Your task to perform on an android device: set the stopwatch Image 0: 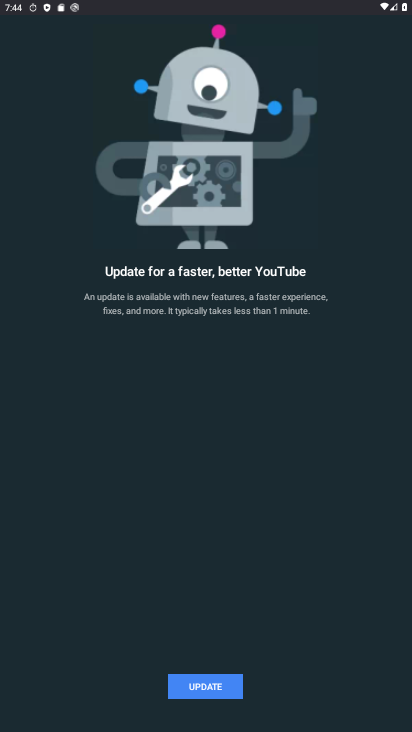
Step 0: press home button
Your task to perform on an android device: set the stopwatch Image 1: 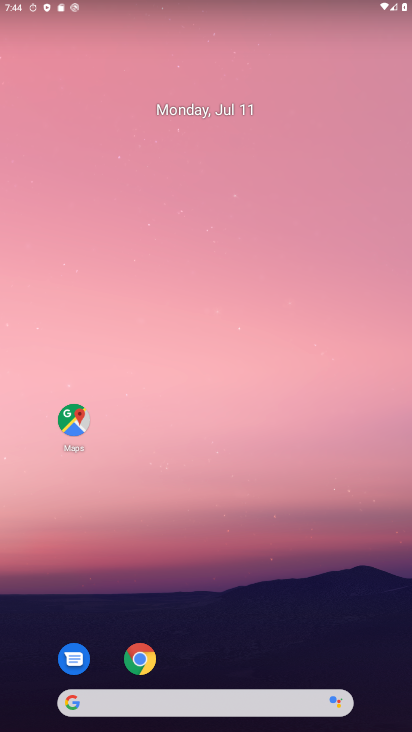
Step 1: drag from (285, 585) to (17, 25)
Your task to perform on an android device: set the stopwatch Image 2: 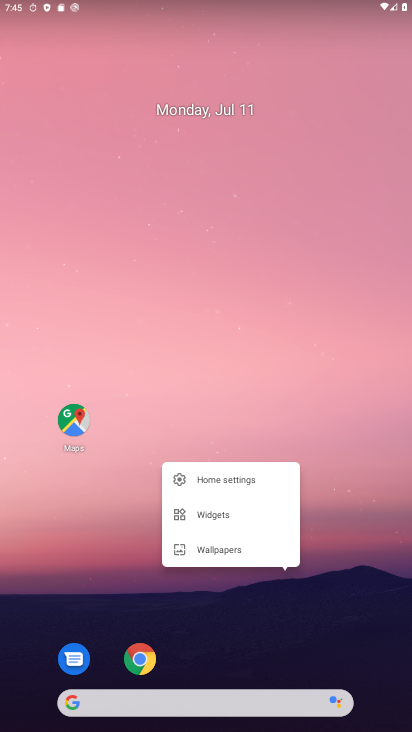
Step 2: click (294, 614)
Your task to perform on an android device: set the stopwatch Image 3: 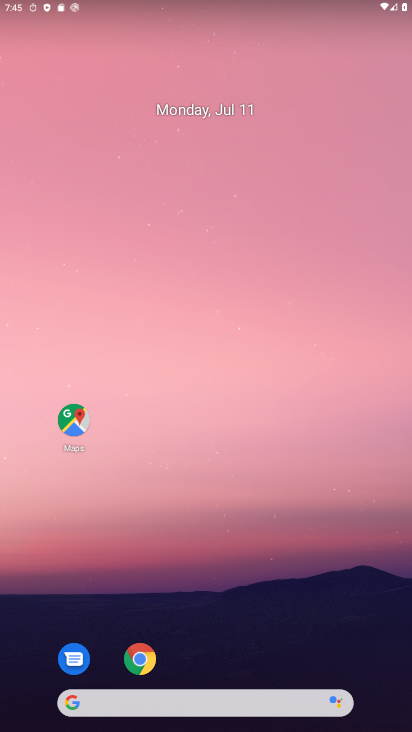
Step 3: drag from (296, 613) to (3, 289)
Your task to perform on an android device: set the stopwatch Image 4: 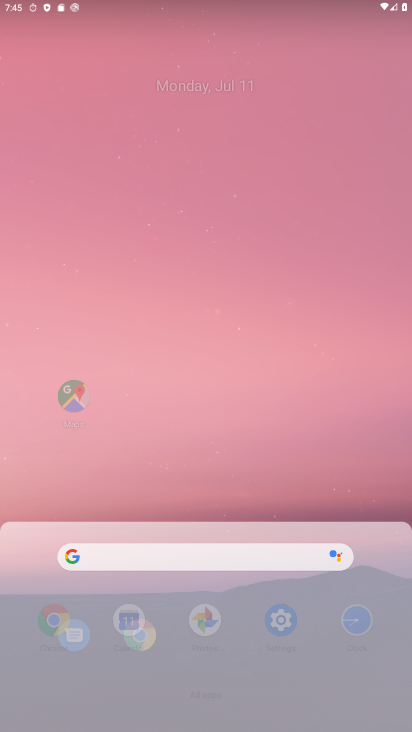
Step 4: drag from (323, 622) to (2, 279)
Your task to perform on an android device: set the stopwatch Image 5: 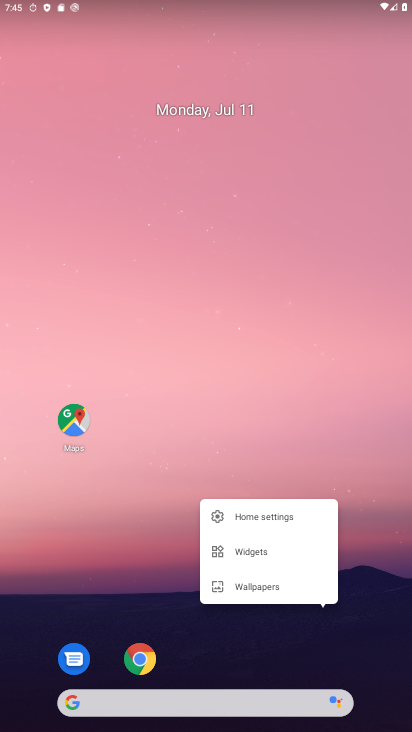
Step 5: click (301, 387)
Your task to perform on an android device: set the stopwatch Image 6: 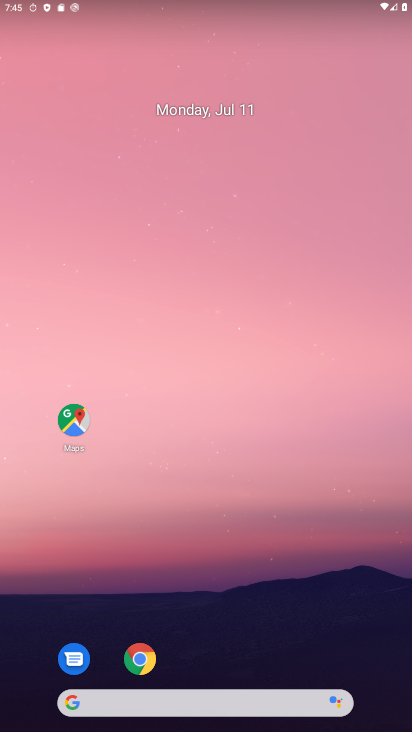
Step 6: drag from (273, 596) to (243, 2)
Your task to perform on an android device: set the stopwatch Image 7: 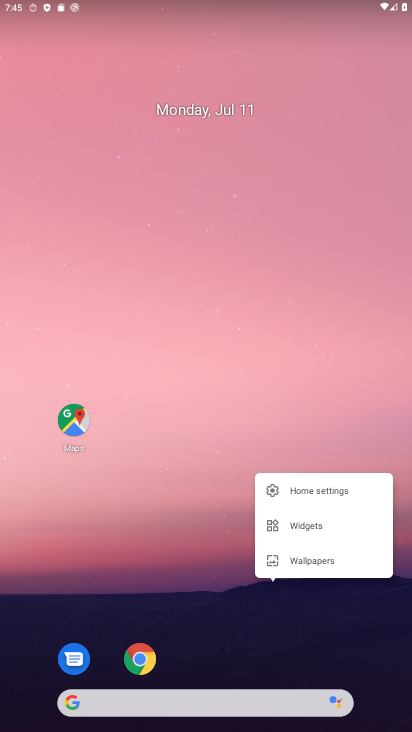
Step 7: click (180, 501)
Your task to perform on an android device: set the stopwatch Image 8: 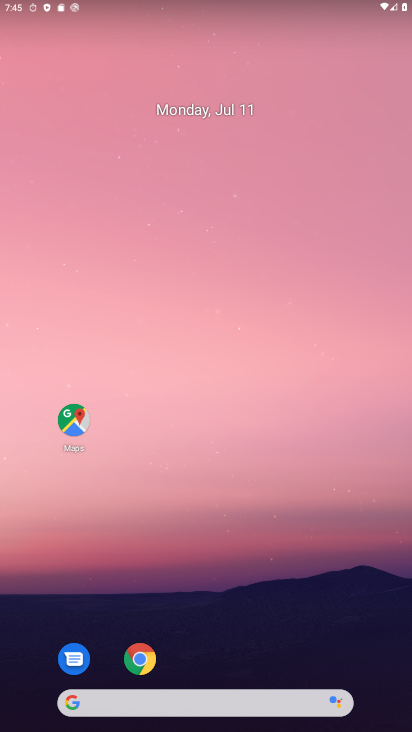
Step 8: drag from (272, 699) to (365, 38)
Your task to perform on an android device: set the stopwatch Image 9: 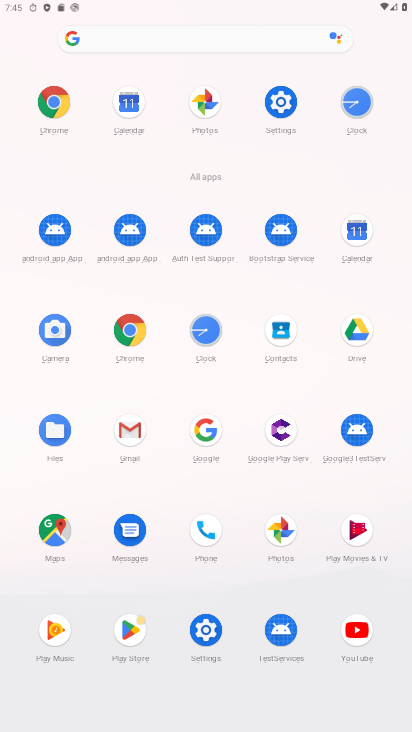
Step 9: click (207, 326)
Your task to perform on an android device: set the stopwatch Image 10: 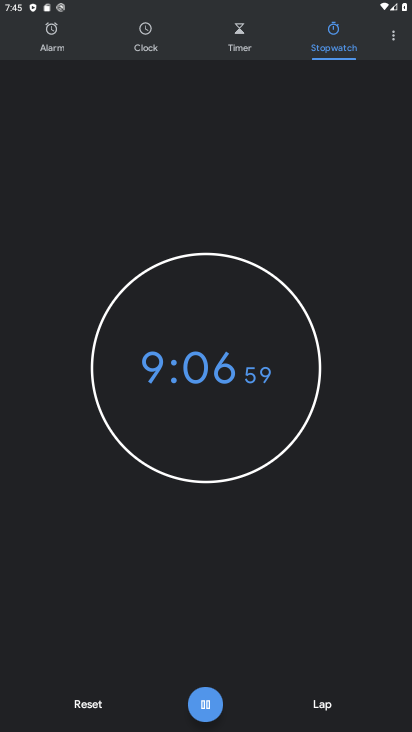
Step 10: task complete